Your task to perform on an android device: toggle show notifications on the lock screen Image 0: 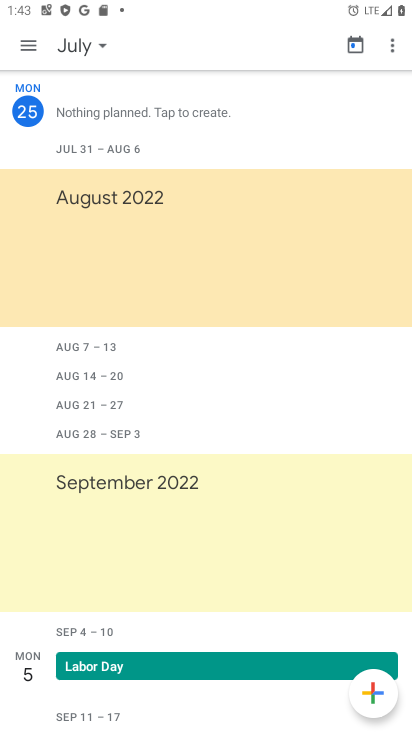
Step 0: press home button
Your task to perform on an android device: toggle show notifications on the lock screen Image 1: 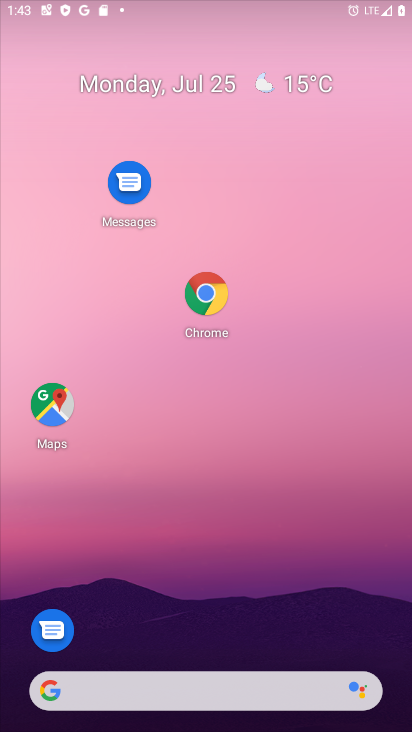
Step 1: drag from (324, 623) to (336, 56)
Your task to perform on an android device: toggle show notifications on the lock screen Image 2: 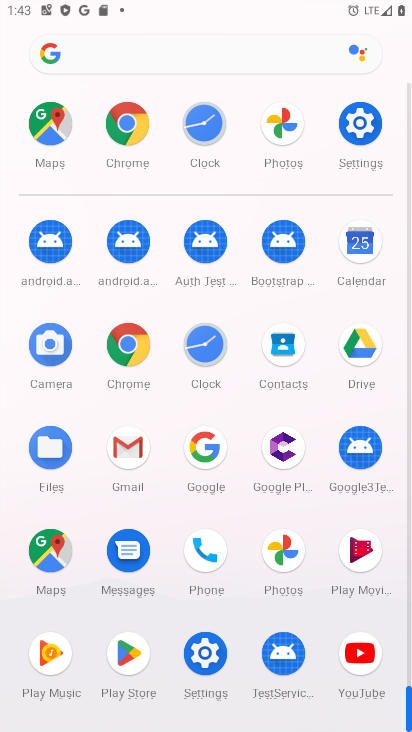
Step 2: click (213, 646)
Your task to perform on an android device: toggle show notifications on the lock screen Image 3: 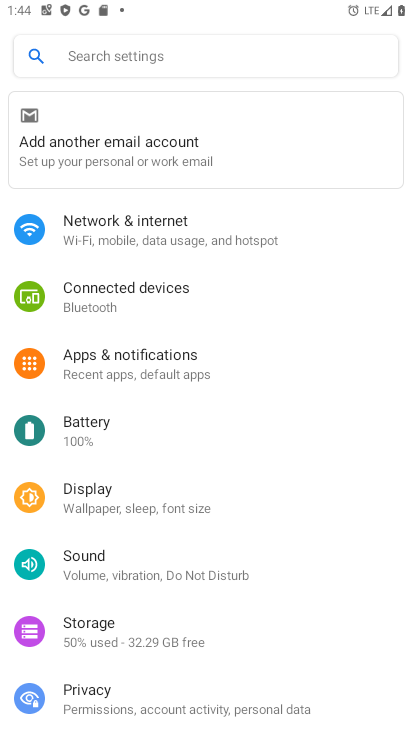
Step 3: drag from (225, 618) to (208, 231)
Your task to perform on an android device: toggle show notifications on the lock screen Image 4: 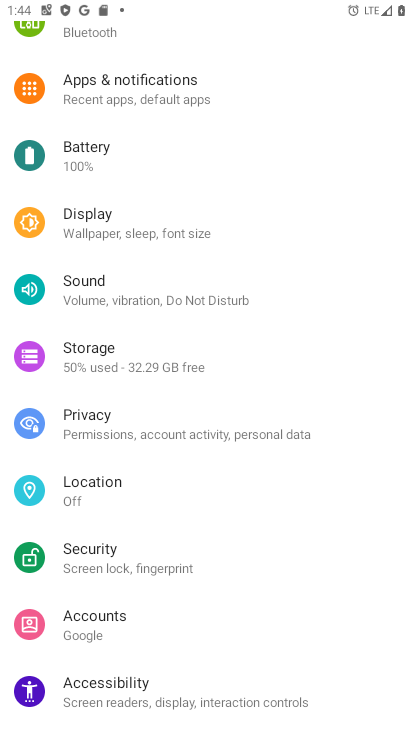
Step 4: click (136, 100)
Your task to perform on an android device: toggle show notifications on the lock screen Image 5: 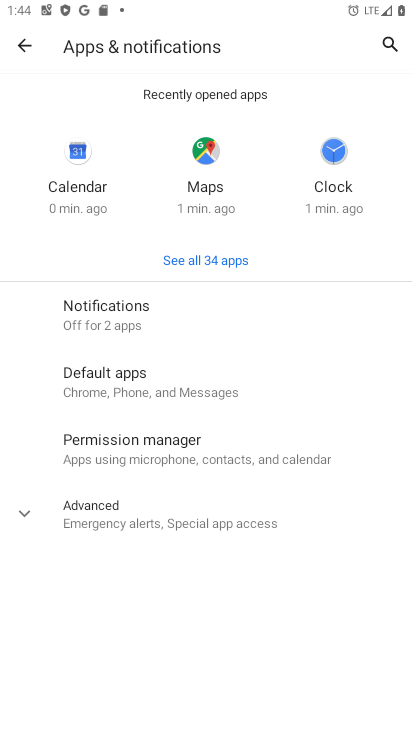
Step 5: click (99, 310)
Your task to perform on an android device: toggle show notifications on the lock screen Image 6: 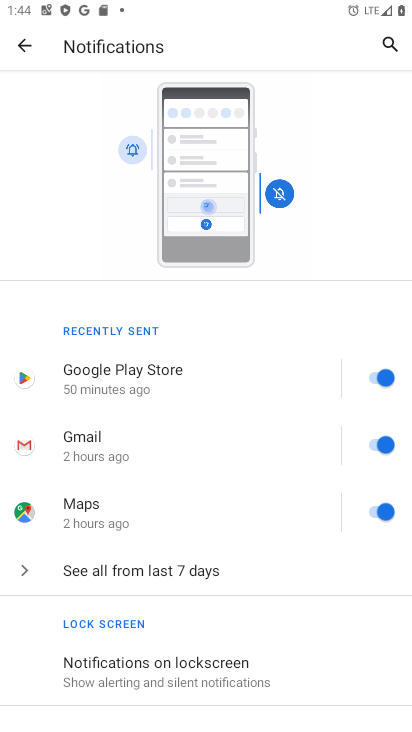
Step 6: click (145, 656)
Your task to perform on an android device: toggle show notifications on the lock screen Image 7: 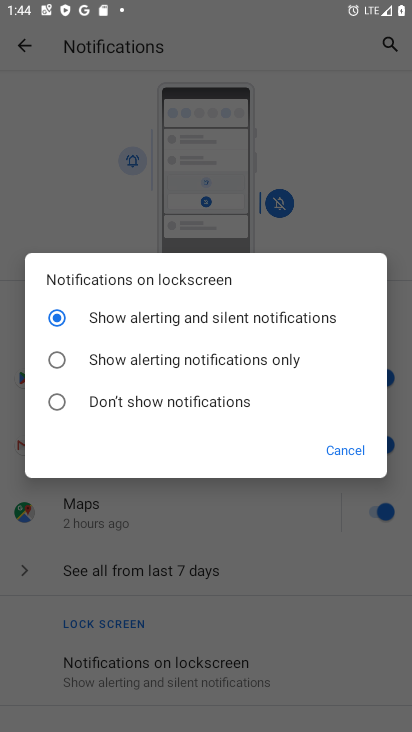
Step 7: task complete